Your task to perform on an android device: change keyboard looks Image 0: 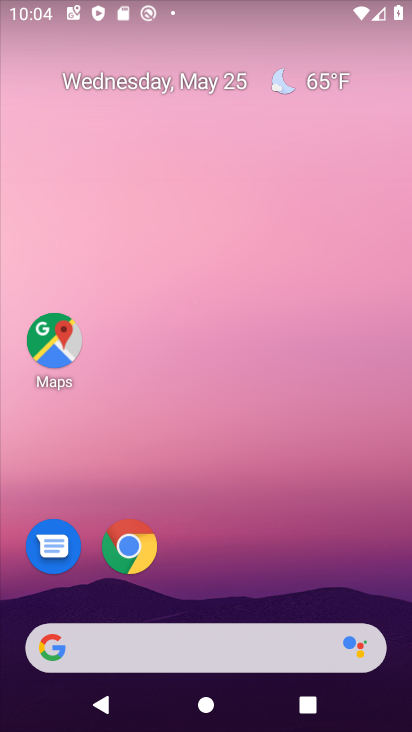
Step 0: drag from (265, 550) to (219, 78)
Your task to perform on an android device: change keyboard looks Image 1: 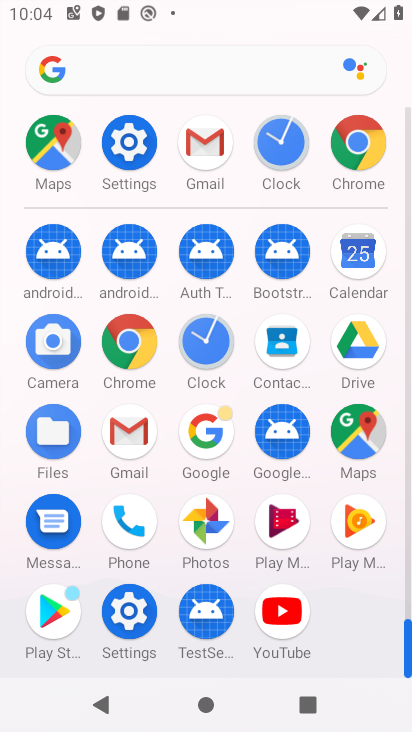
Step 1: drag from (12, 571) to (4, 271)
Your task to perform on an android device: change keyboard looks Image 2: 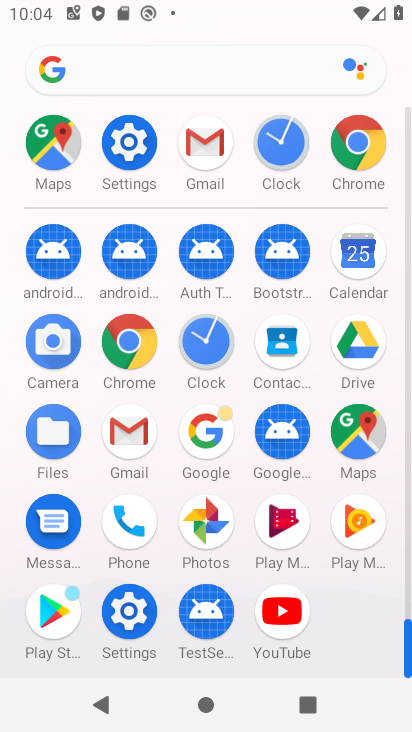
Step 2: click (126, 611)
Your task to perform on an android device: change keyboard looks Image 3: 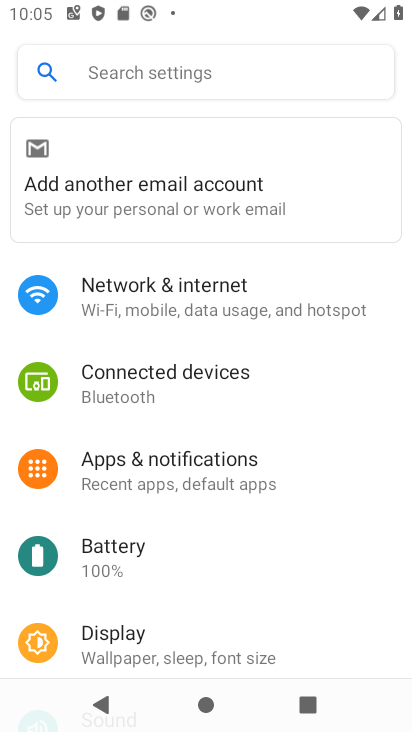
Step 3: drag from (254, 589) to (287, 191)
Your task to perform on an android device: change keyboard looks Image 4: 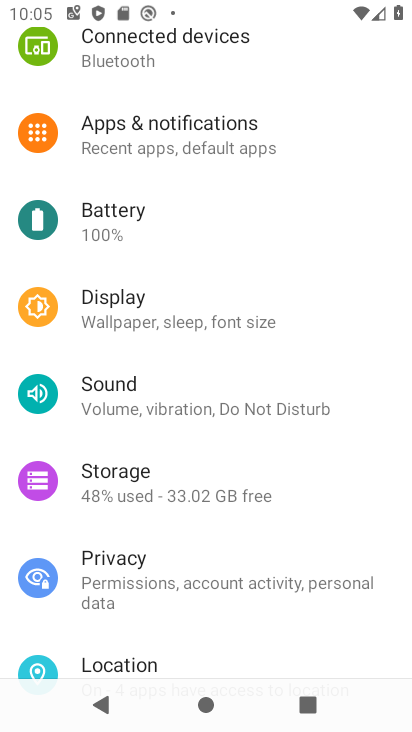
Step 4: drag from (254, 613) to (283, 189)
Your task to perform on an android device: change keyboard looks Image 5: 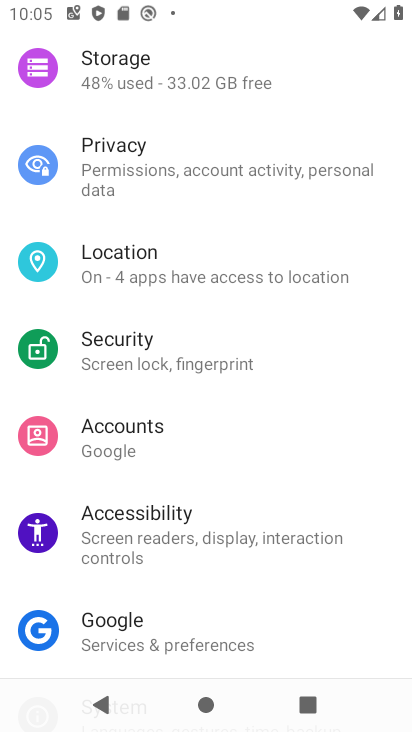
Step 5: drag from (225, 573) to (224, 127)
Your task to perform on an android device: change keyboard looks Image 6: 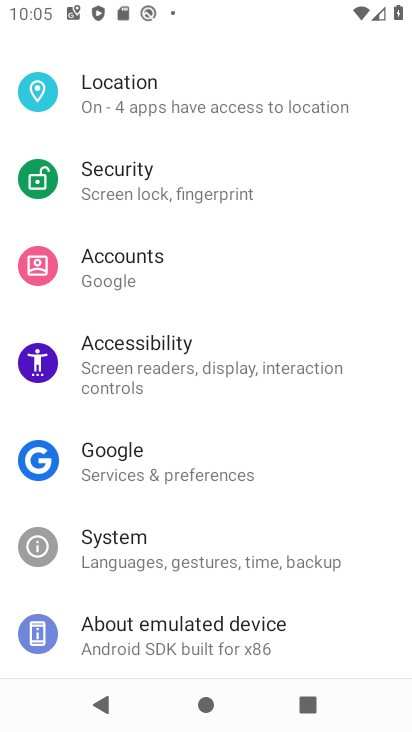
Step 6: click (185, 557)
Your task to perform on an android device: change keyboard looks Image 7: 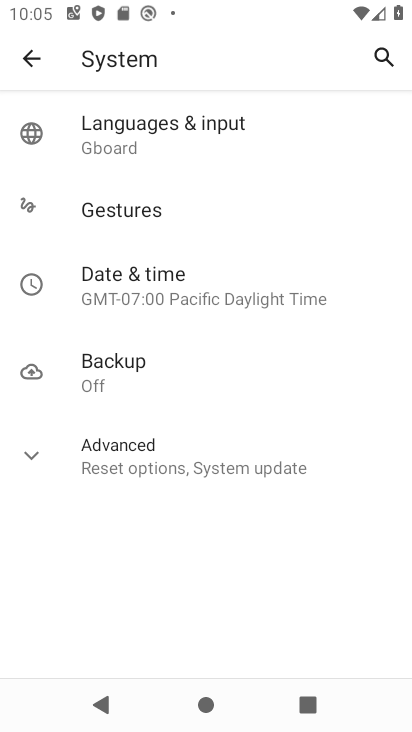
Step 7: click (58, 462)
Your task to perform on an android device: change keyboard looks Image 8: 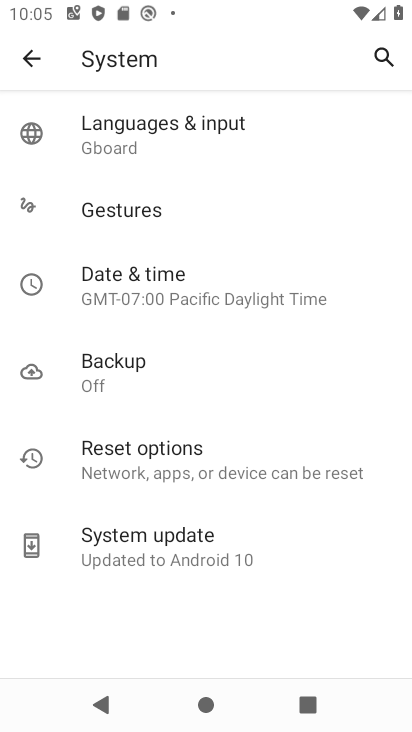
Step 8: click (162, 147)
Your task to perform on an android device: change keyboard looks Image 9: 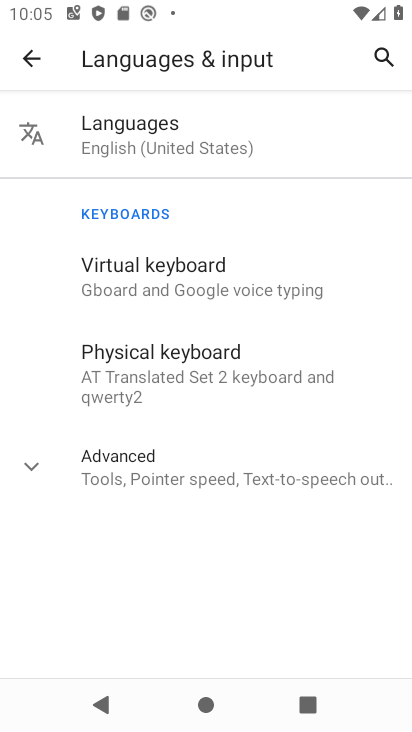
Step 9: click (37, 456)
Your task to perform on an android device: change keyboard looks Image 10: 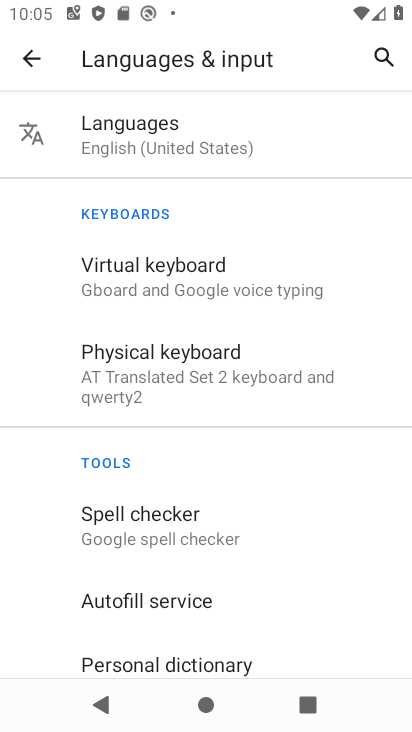
Step 10: click (217, 285)
Your task to perform on an android device: change keyboard looks Image 11: 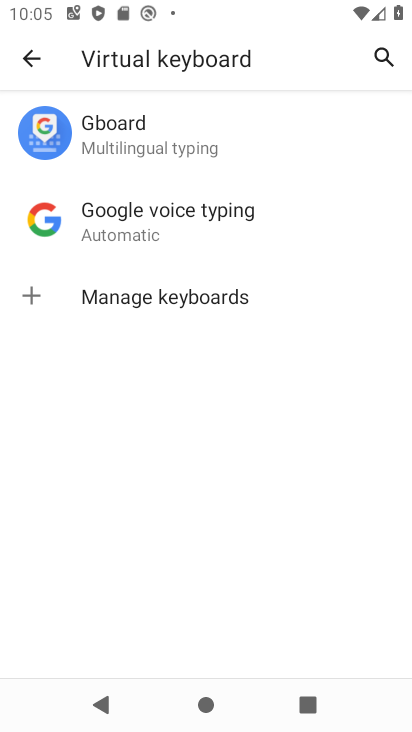
Step 11: click (166, 141)
Your task to perform on an android device: change keyboard looks Image 12: 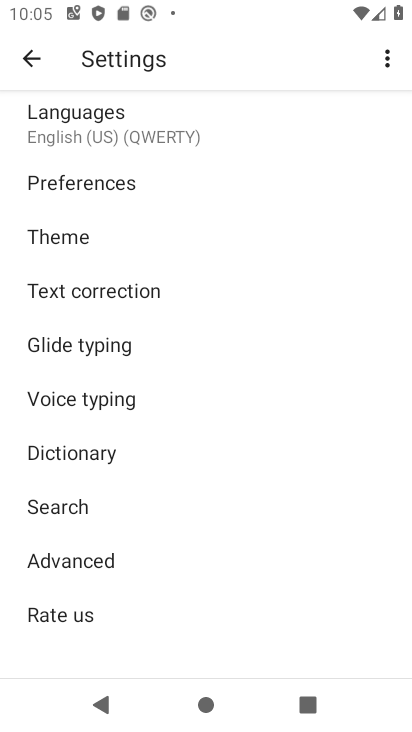
Step 12: click (102, 234)
Your task to perform on an android device: change keyboard looks Image 13: 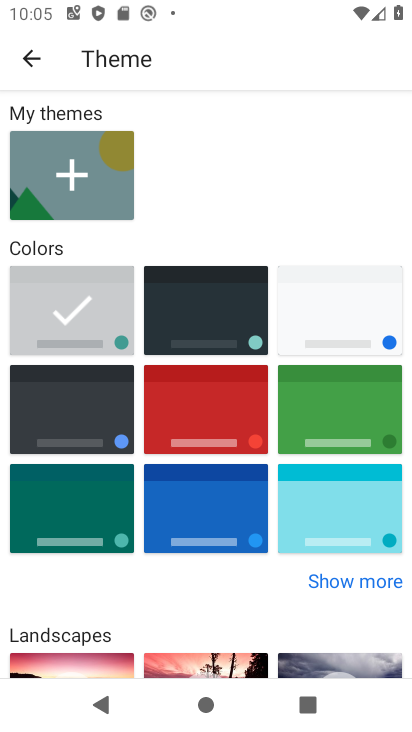
Step 13: click (208, 298)
Your task to perform on an android device: change keyboard looks Image 14: 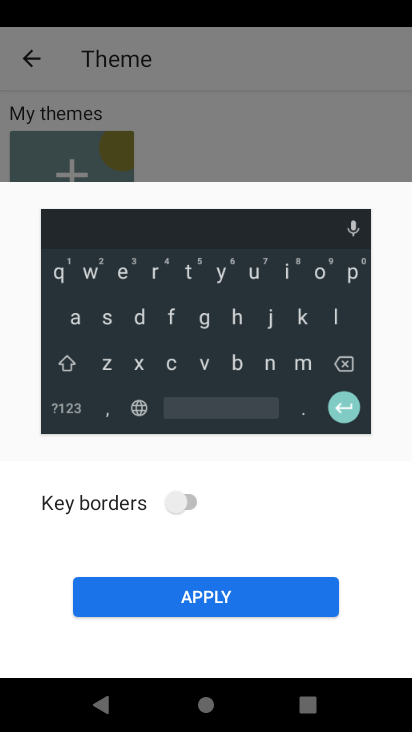
Step 14: click (199, 598)
Your task to perform on an android device: change keyboard looks Image 15: 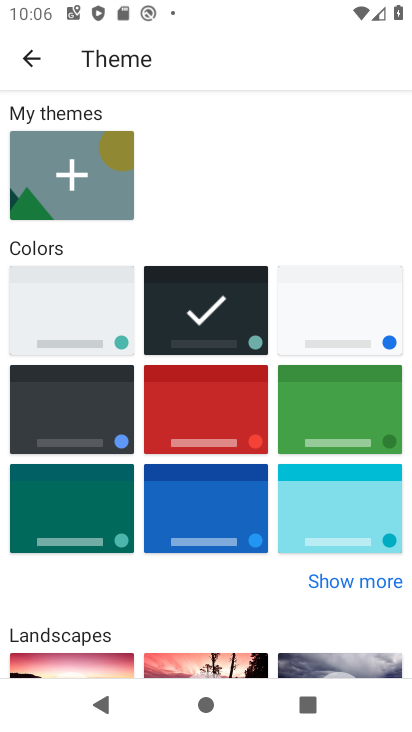
Step 15: task complete